Your task to perform on an android device: Search for a home improvement project you can do. Image 0: 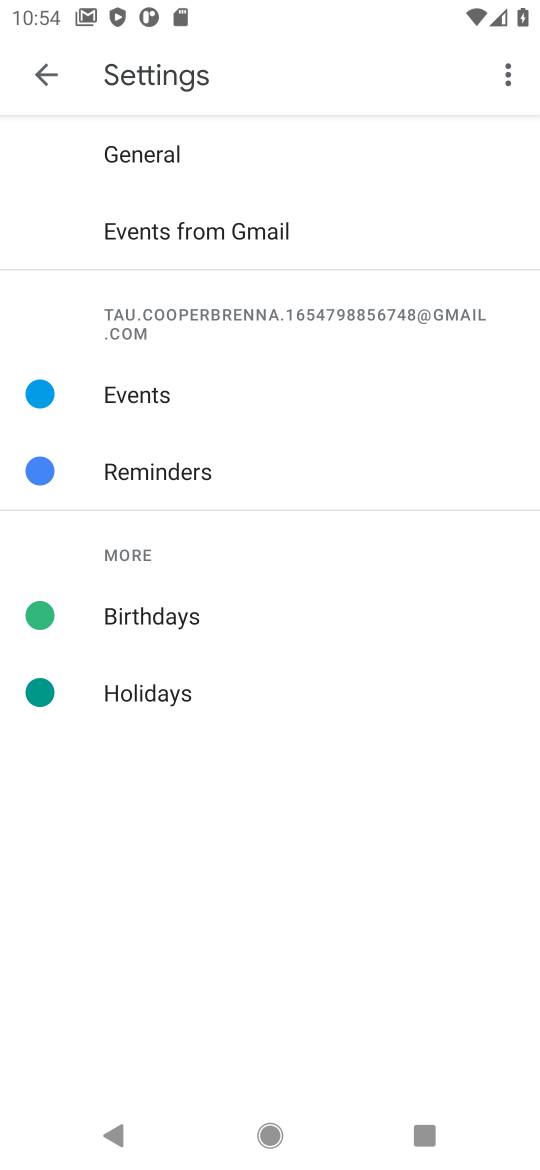
Step 0: press home button
Your task to perform on an android device: Search for a home improvement project you can do. Image 1: 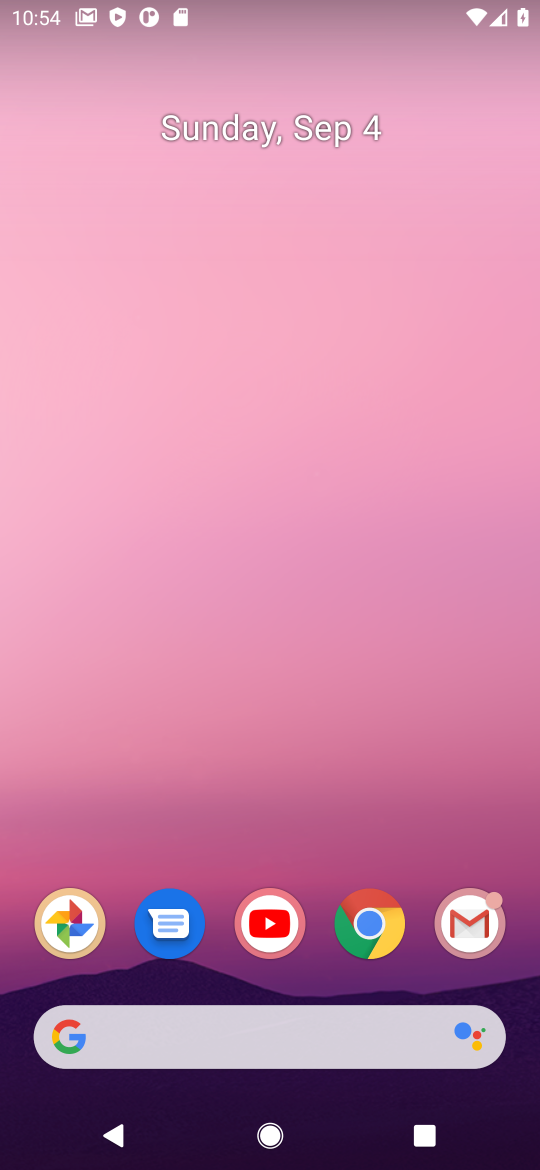
Step 1: click (349, 922)
Your task to perform on an android device: Search for a home improvement project you can do. Image 2: 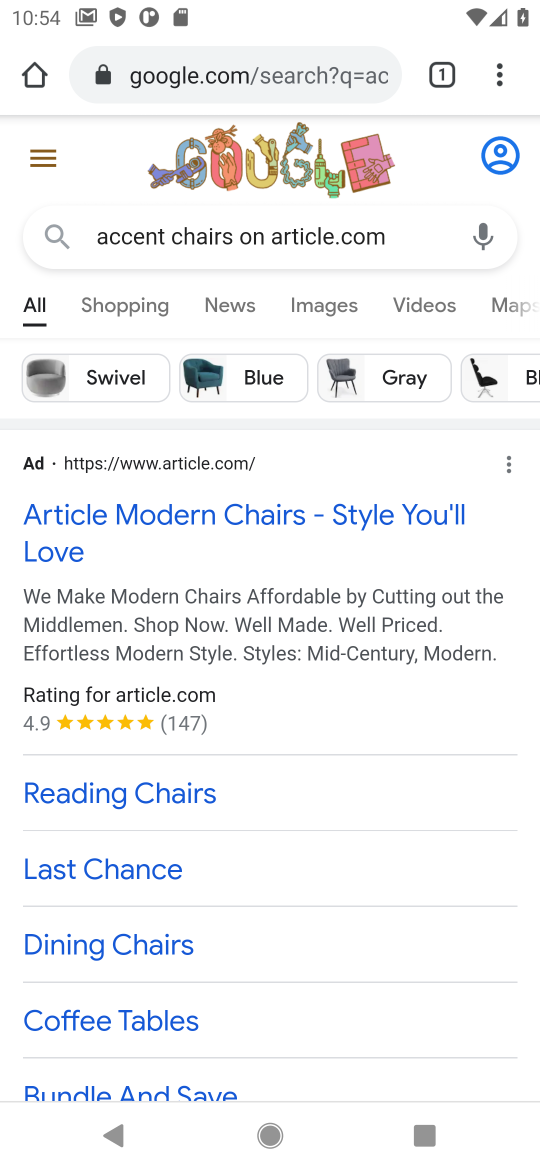
Step 2: click (285, 75)
Your task to perform on an android device: Search for a home improvement project you can do. Image 3: 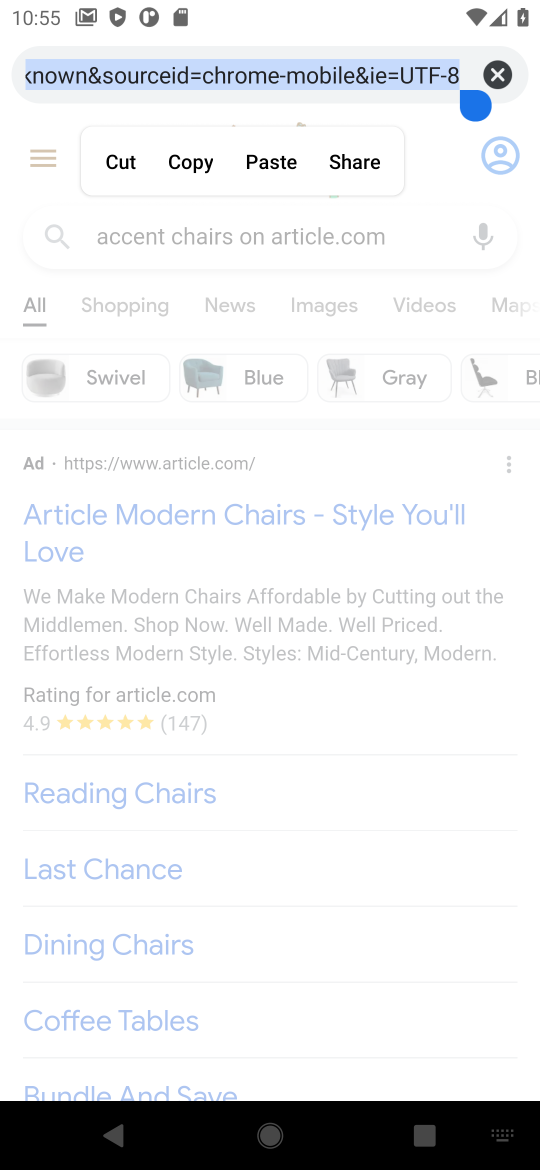
Step 3: click (504, 70)
Your task to perform on an android device: Search for a home improvement project you can do. Image 4: 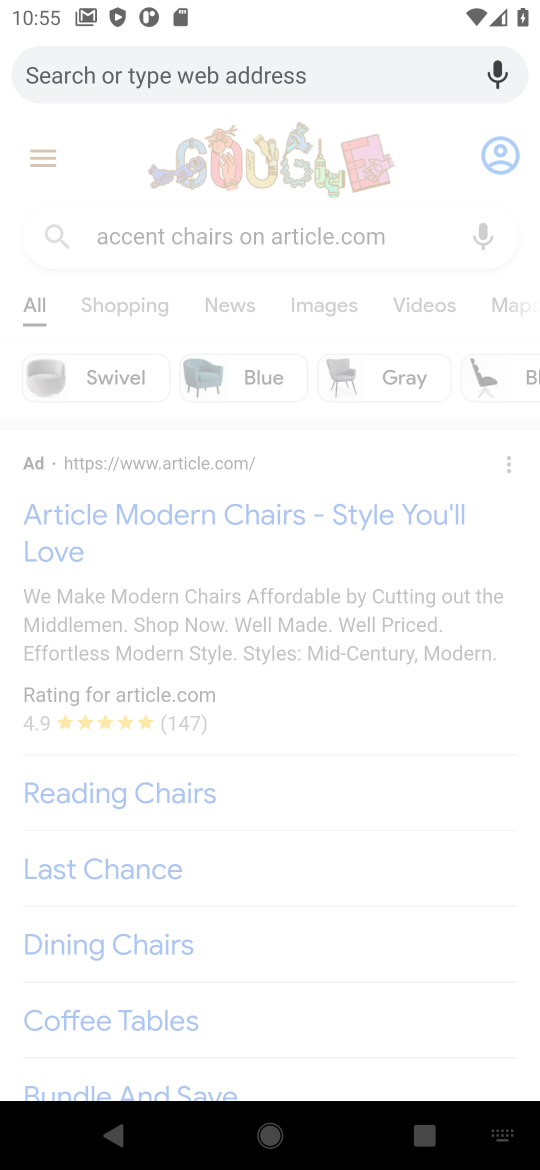
Step 4: type " home improvement project you can do."
Your task to perform on an android device: Search for a home improvement project you can do. Image 5: 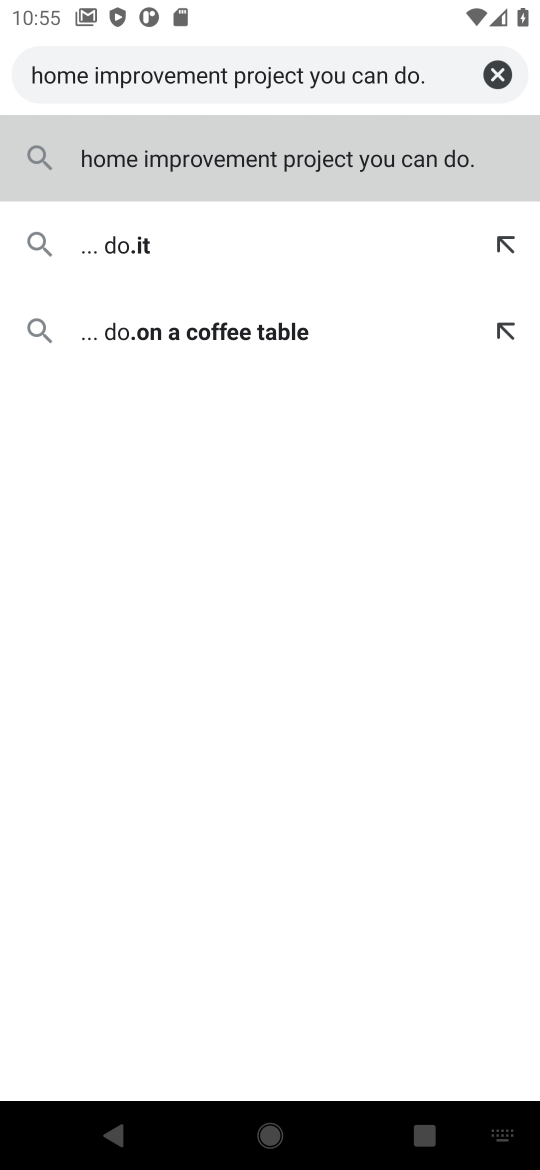
Step 5: click (351, 190)
Your task to perform on an android device: Search for a home improvement project you can do. Image 6: 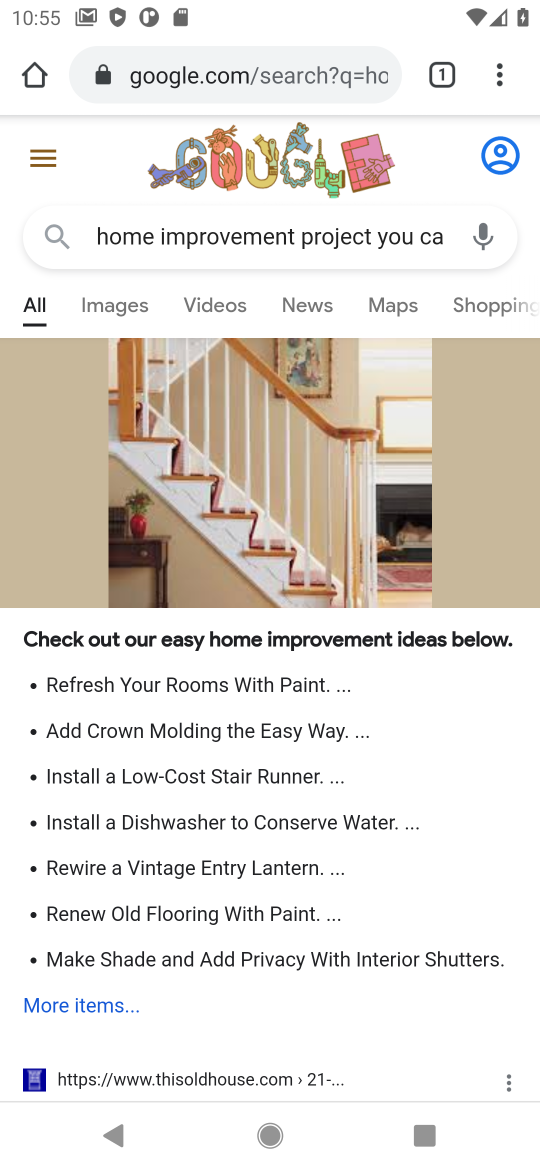
Step 6: task complete